Your task to perform on an android device: open app "Instagram" Image 0: 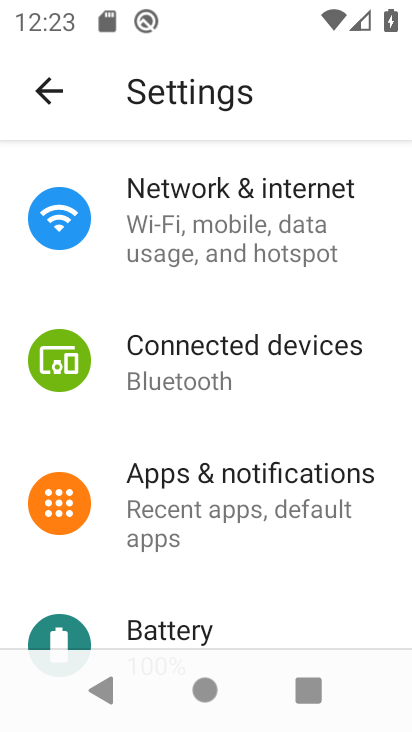
Step 0: press home button
Your task to perform on an android device: open app "Instagram" Image 1: 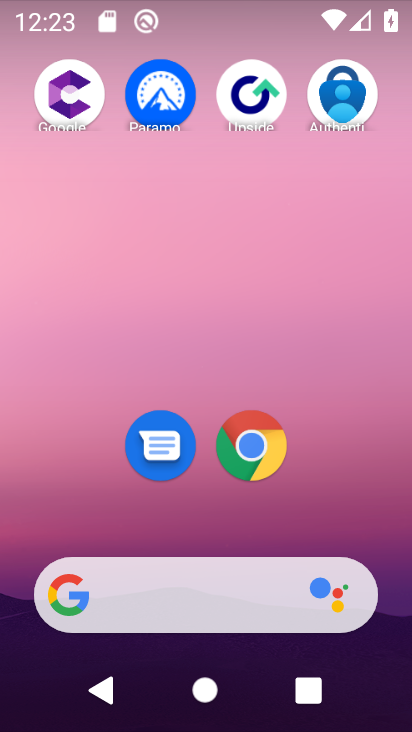
Step 1: drag from (304, 526) to (256, 41)
Your task to perform on an android device: open app "Instagram" Image 2: 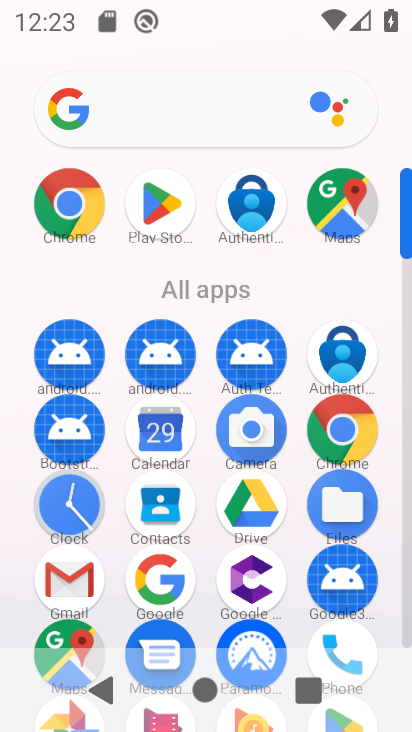
Step 2: click (146, 224)
Your task to perform on an android device: open app "Instagram" Image 3: 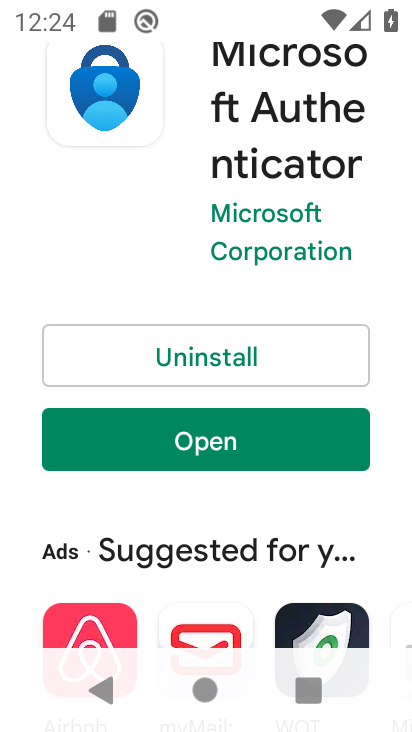
Step 3: click (312, 516)
Your task to perform on an android device: open app "Instagram" Image 4: 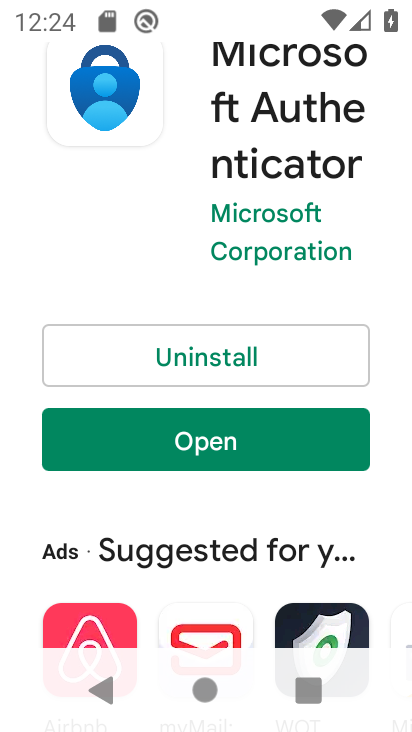
Step 4: drag from (256, 332) to (251, 609)
Your task to perform on an android device: open app "Instagram" Image 5: 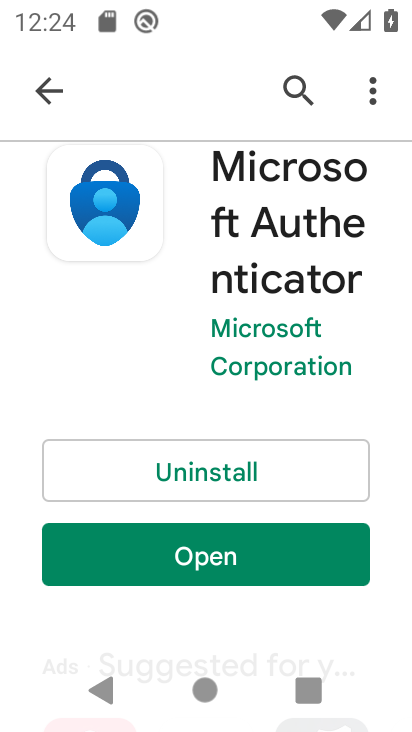
Step 5: click (299, 90)
Your task to perform on an android device: open app "Instagram" Image 6: 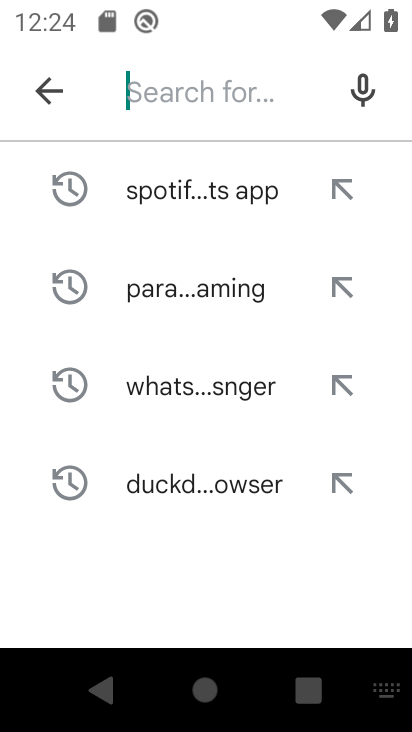
Step 6: click (244, 83)
Your task to perform on an android device: open app "Instagram" Image 7: 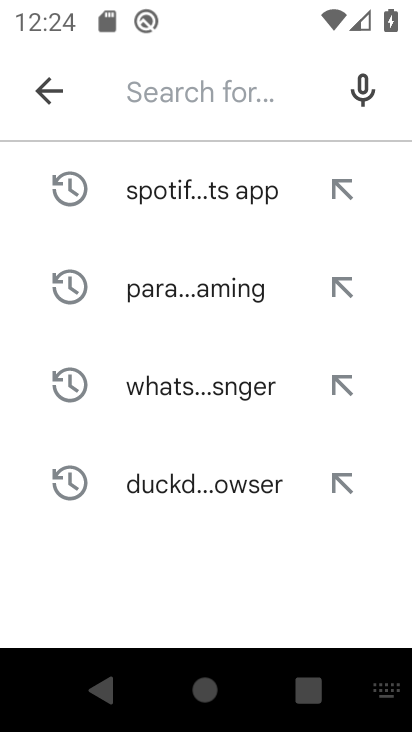
Step 7: type "Instagram"
Your task to perform on an android device: open app "Instagram" Image 8: 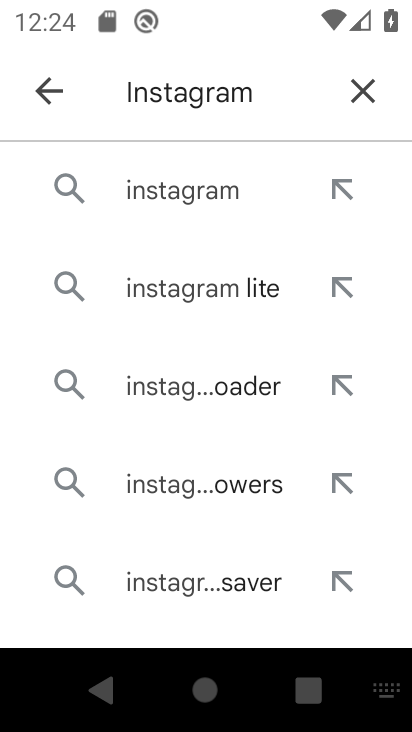
Step 8: click (136, 190)
Your task to perform on an android device: open app "Instagram" Image 9: 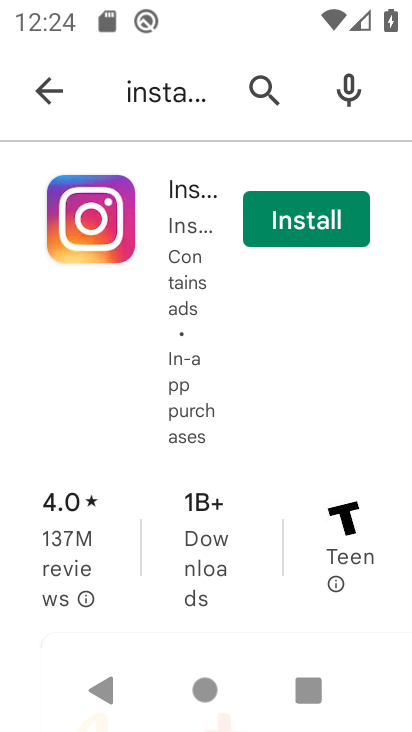
Step 9: task complete